Your task to perform on an android device: turn off priority inbox in the gmail app Image 0: 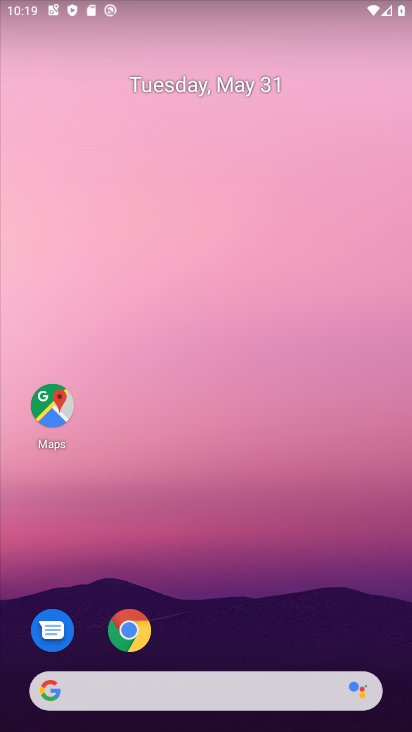
Step 0: press home button
Your task to perform on an android device: turn off priority inbox in the gmail app Image 1: 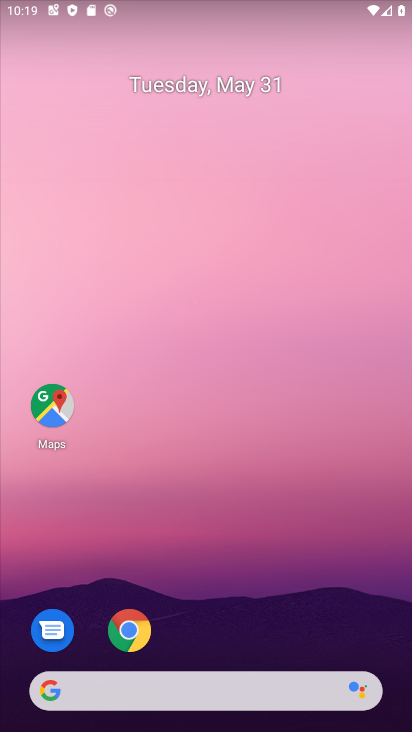
Step 1: drag from (297, 616) to (255, 173)
Your task to perform on an android device: turn off priority inbox in the gmail app Image 2: 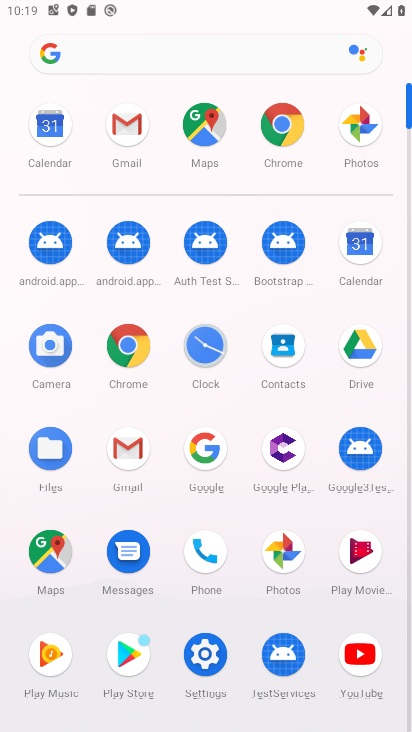
Step 2: click (130, 125)
Your task to perform on an android device: turn off priority inbox in the gmail app Image 3: 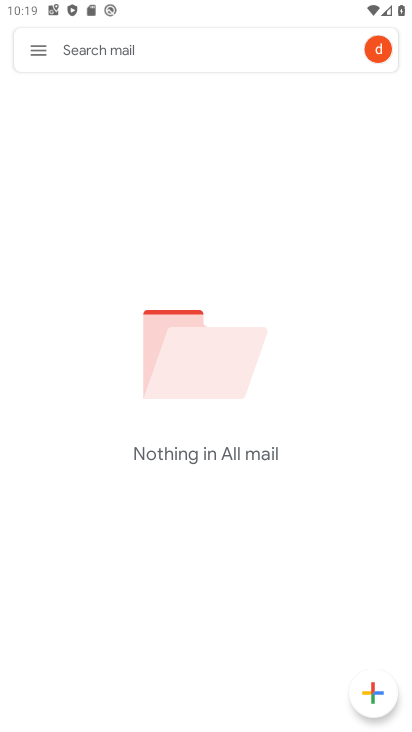
Step 3: click (30, 54)
Your task to perform on an android device: turn off priority inbox in the gmail app Image 4: 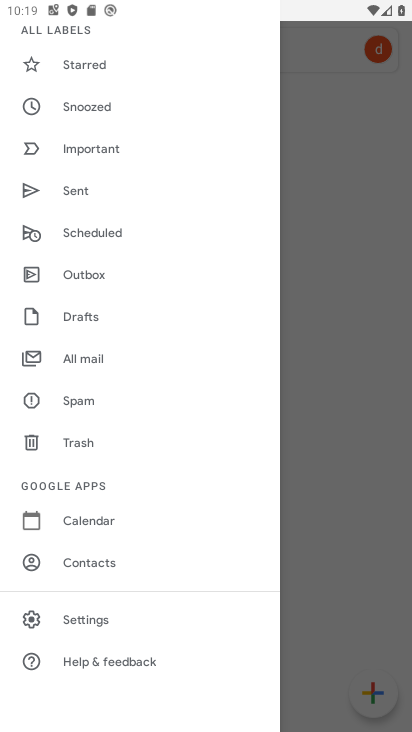
Step 4: click (90, 621)
Your task to perform on an android device: turn off priority inbox in the gmail app Image 5: 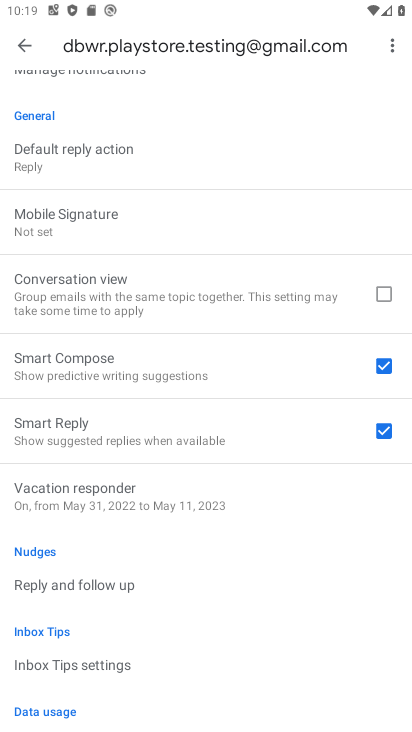
Step 5: drag from (241, 94) to (230, 425)
Your task to perform on an android device: turn off priority inbox in the gmail app Image 6: 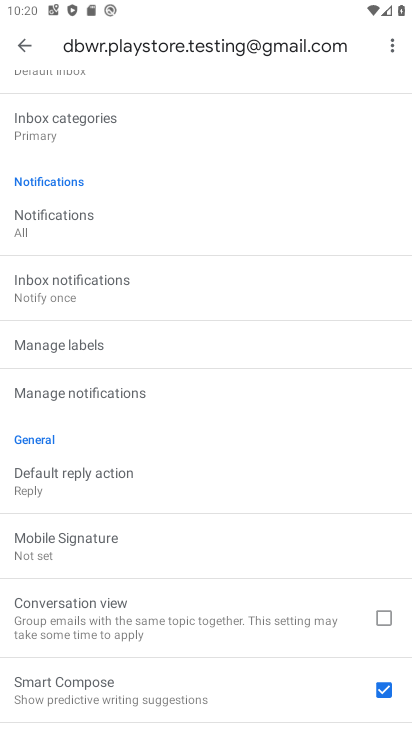
Step 6: drag from (293, 104) to (294, 264)
Your task to perform on an android device: turn off priority inbox in the gmail app Image 7: 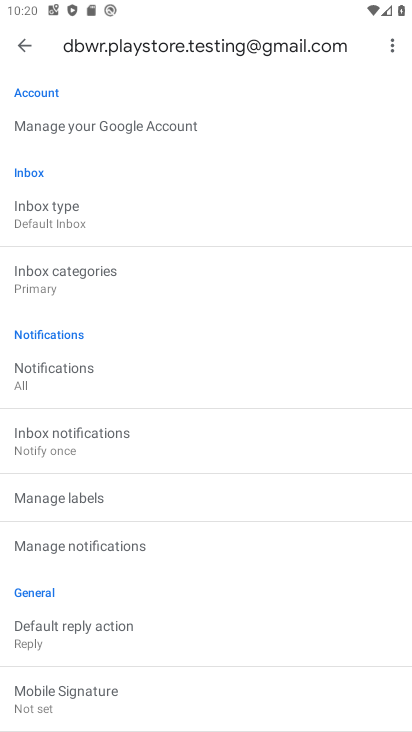
Step 7: click (75, 220)
Your task to perform on an android device: turn off priority inbox in the gmail app Image 8: 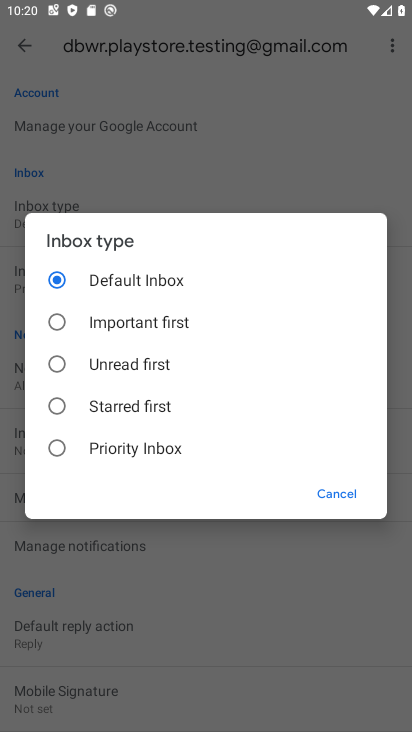
Step 8: task complete